Your task to perform on an android device: Do I have any events tomorrow? Image 0: 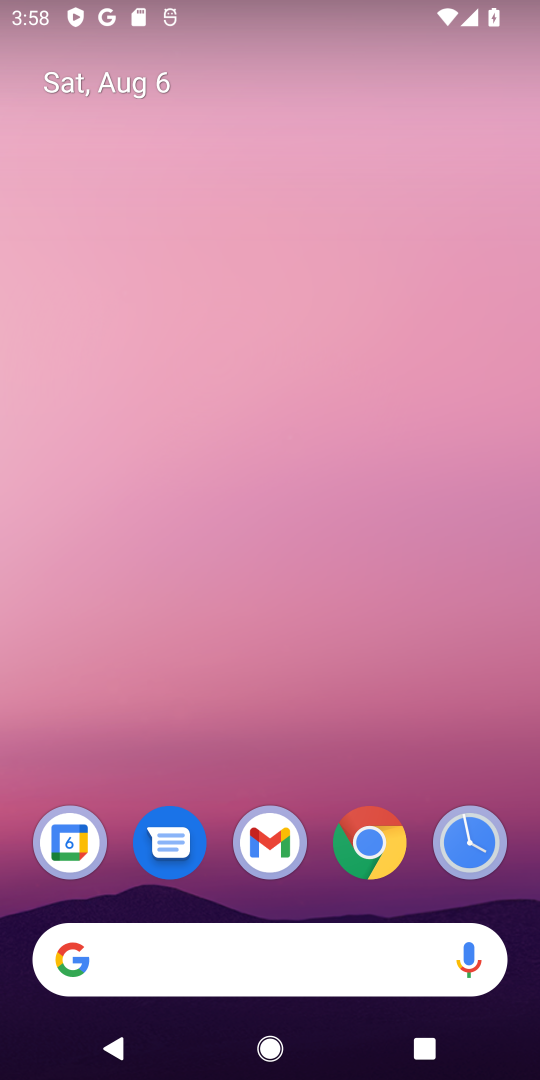
Step 0: click (61, 836)
Your task to perform on an android device: Do I have any events tomorrow? Image 1: 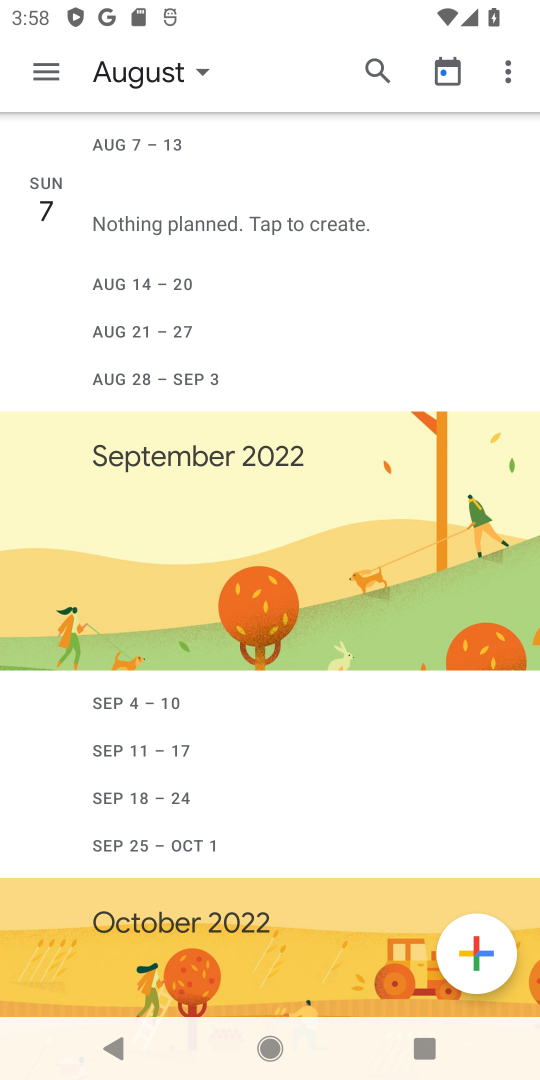
Step 1: click (43, 67)
Your task to perform on an android device: Do I have any events tomorrow? Image 2: 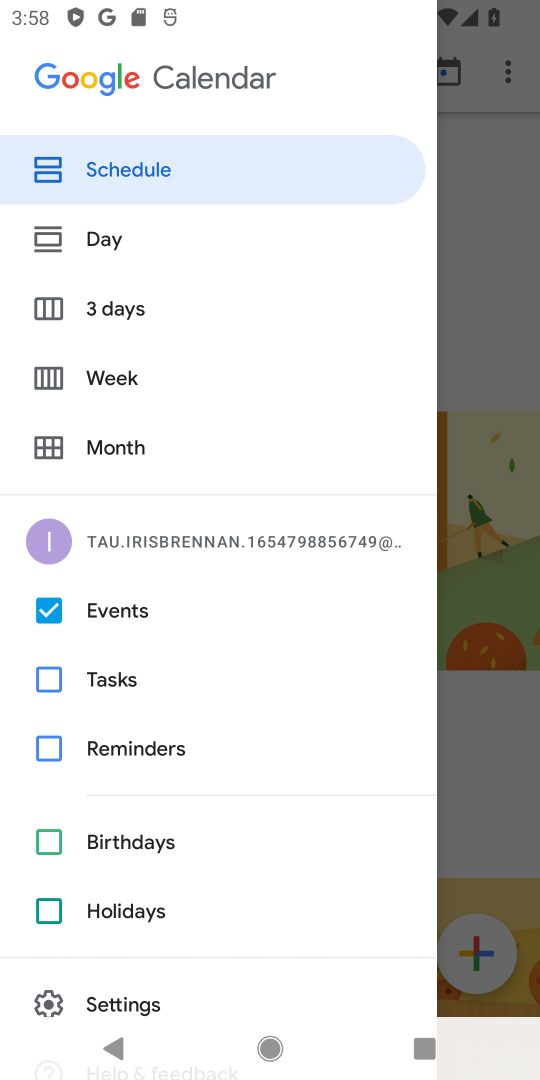
Step 2: click (140, 168)
Your task to perform on an android device: Do I have any events tomorrow? Image 3: 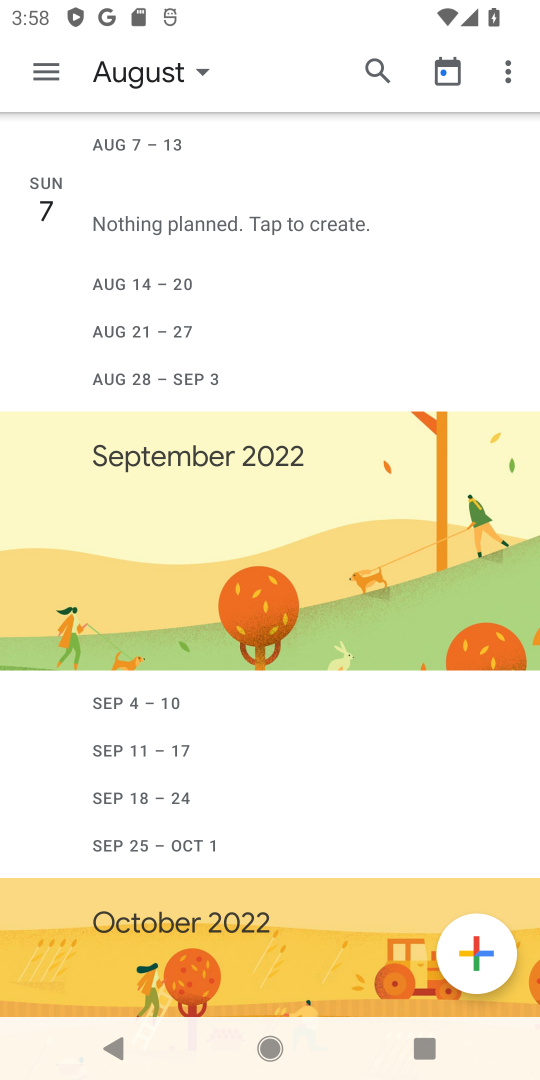
Step 3: click (193, 75)
Your task to perform on an android device: Do I have any events tomorrow? Image 4: 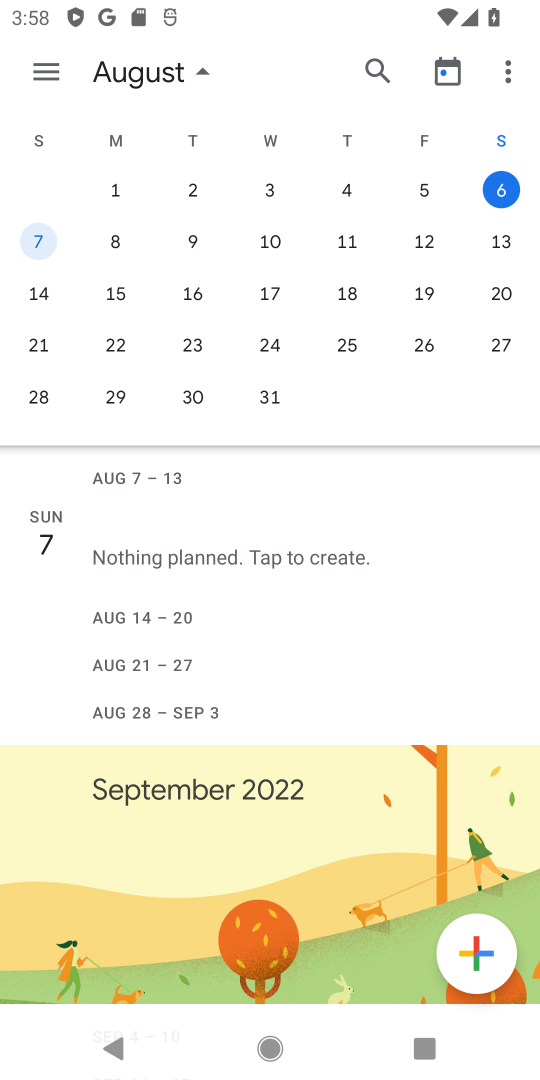
Step 4: click (33, 235)
Your task to perform on an android device: Do I have any events tomorrow? Image 5: 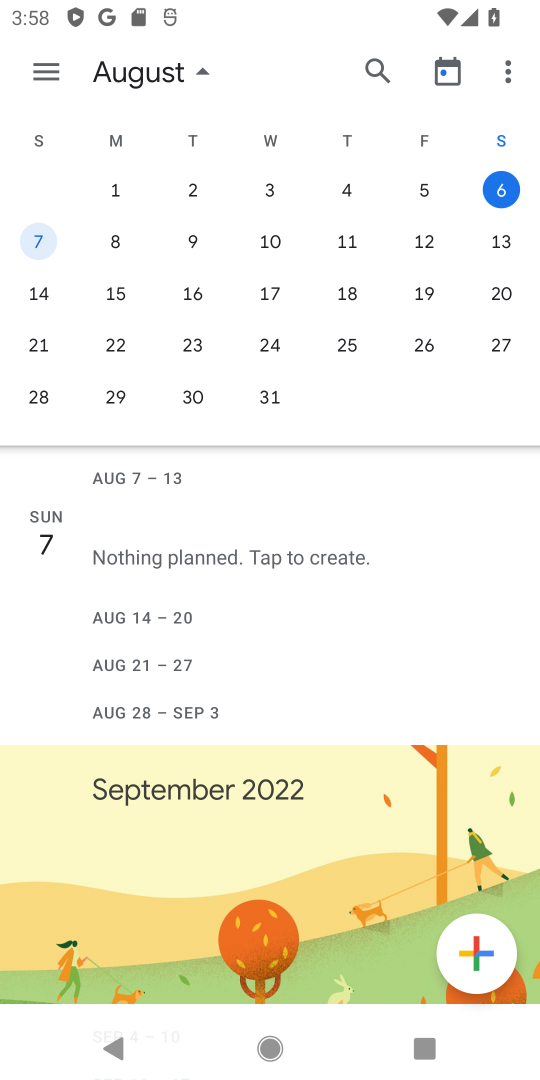
Step 5: task complete